Your task to perform on an android device: set the stopwatch Image 0: 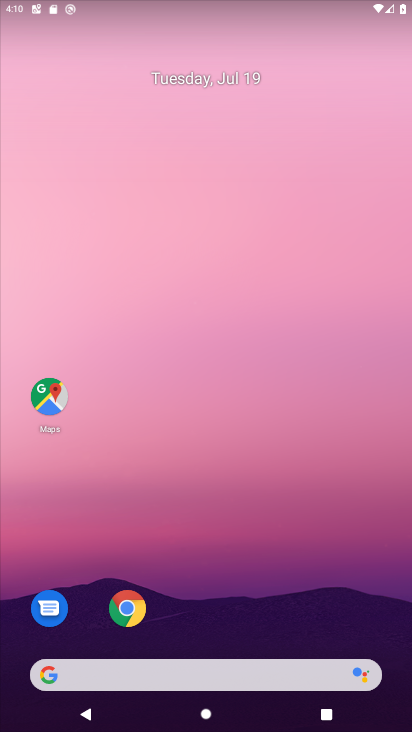
Step 0: drag from (211, 680) to (217, 149)
Your task to perform on an android device: set the stopwatch Image 1: 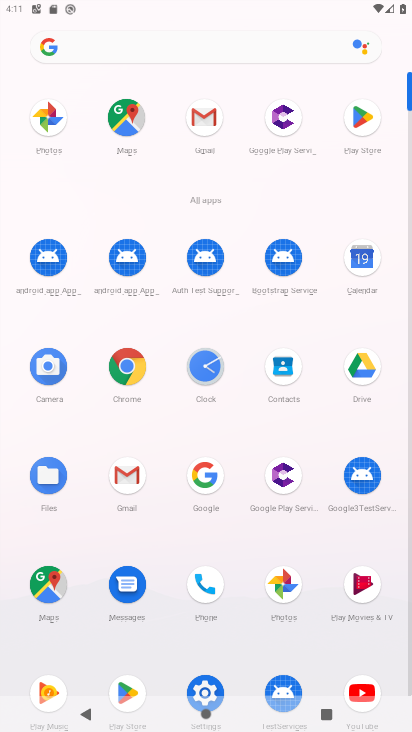
Step 1: click (208, 364)
Your task to perform on an android device: set the stopwatch Image 2: 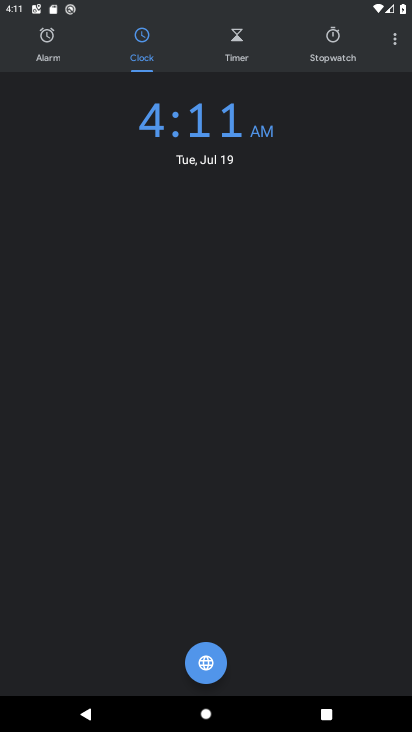
Step 2: click (334, 39)
Your task to perform on an android device: set the stopwatch Image 3: 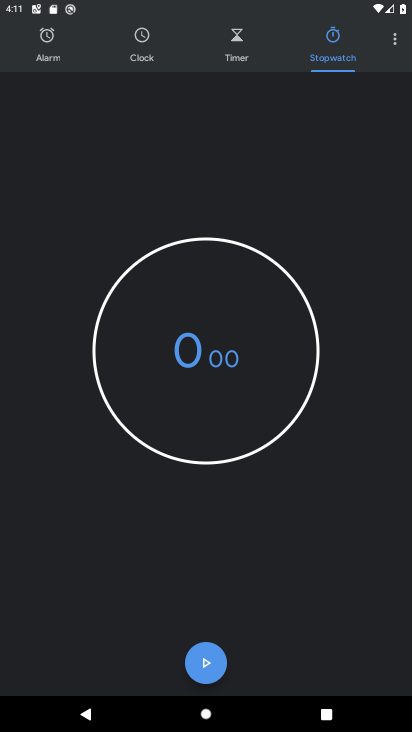
Step 3: click (210, 657)
Your task to perform on an android device: set the stopwatch Image 4: 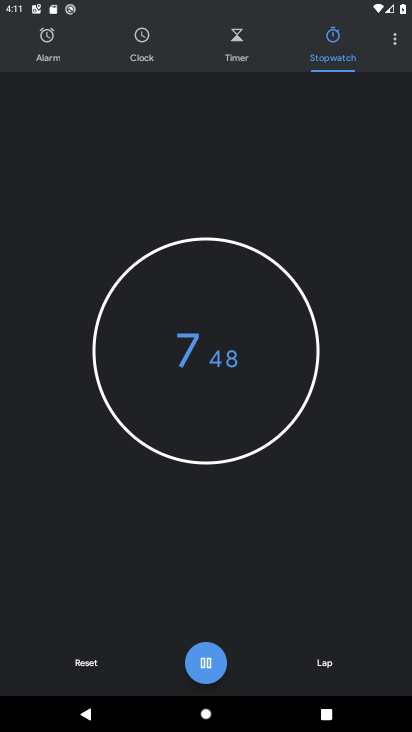
Step 4: click (210, 657)
Your task to perform on an android device: set the stopwatch Image 5: 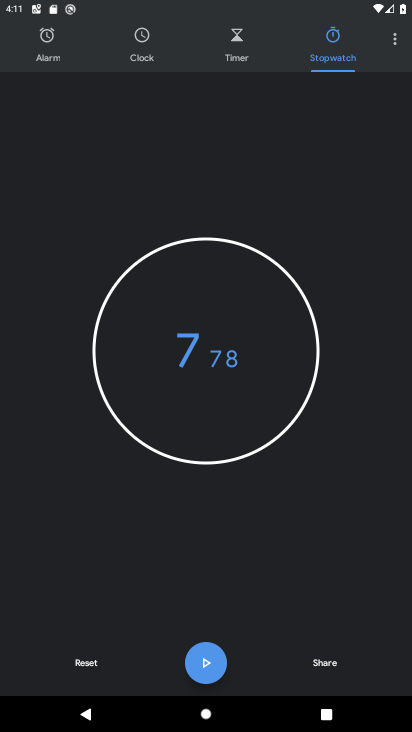
Step 5: task complete